Your task to perform on an android device: turn off data saver in the chrome app Image 0: 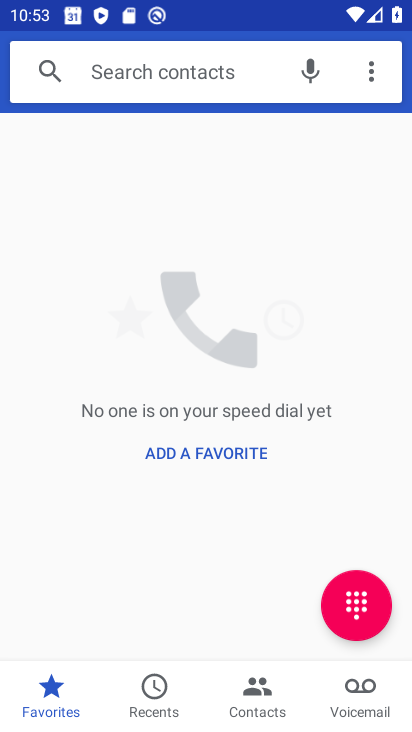
Step 0: press home button
Your task to perform on an android device: turn off data saver in the chrome app Image 1: 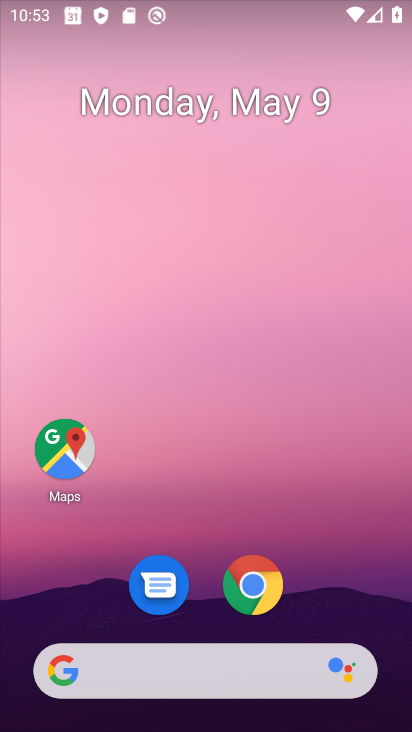
Step 1: click (260, 584)
Your task to perform on an android device: turn off data saver in the chrome app Image 2: 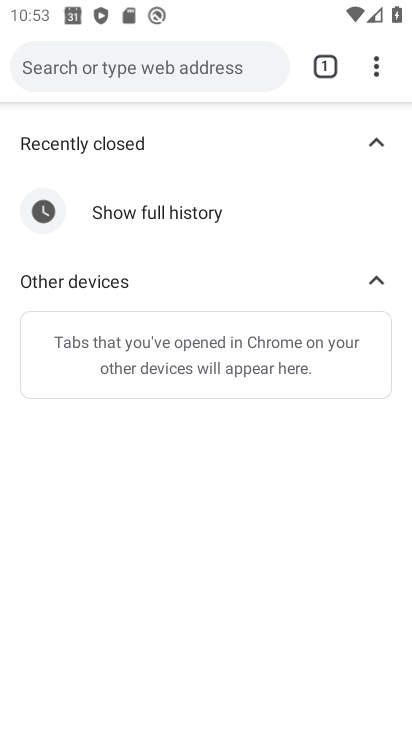
Step 2: click (373, 64)
Your task to perform on an android device: turn off data saver in the chrome app Image 3: 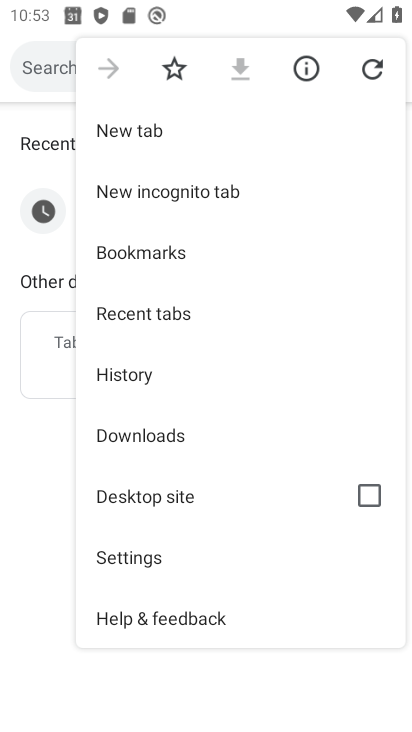
Step 3: click (275, 569)
Your task to perform on an android device: turn off data saver in the chrome app Image 4: 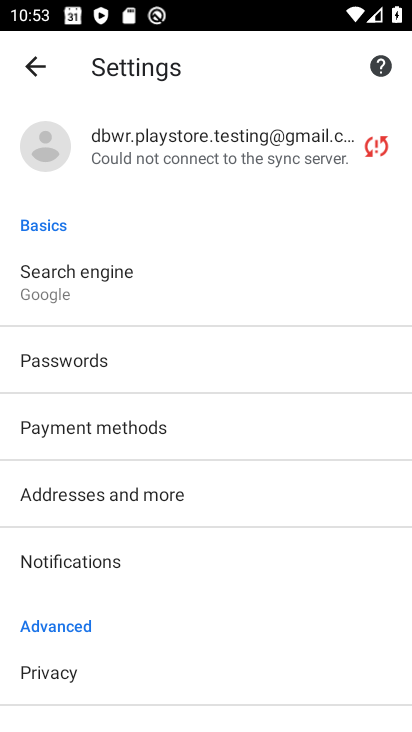
Step 4: click (275, 569)
Your task to perform on an android device: turn off data saver in the chrome app Image 5: 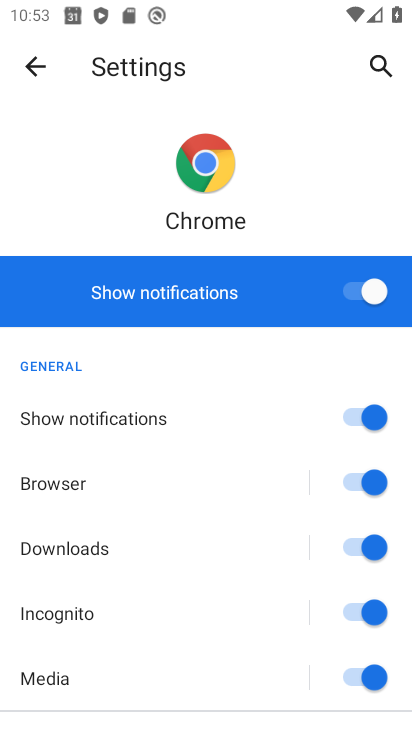
Step 5: click (39, 61)
Your task to perform on an android device: turn off data saver in the chrome app Image 6: 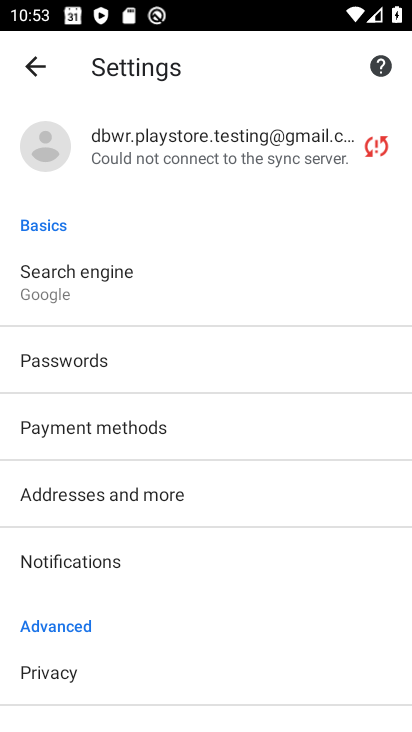
Step 6: drag from (159, 614) to (185, 364)
Your task to perform on an android device: turn off data saver in the chrome app Image 7: 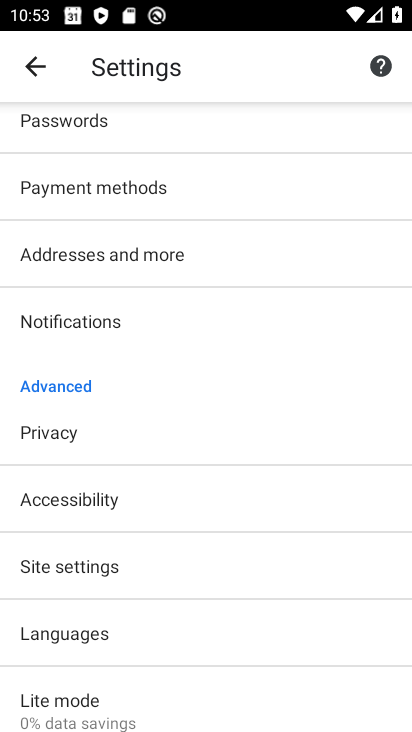
Step 7: click (176, 704)
Your task to perform on an android device: turn off data saver in the chrome app Image 8: 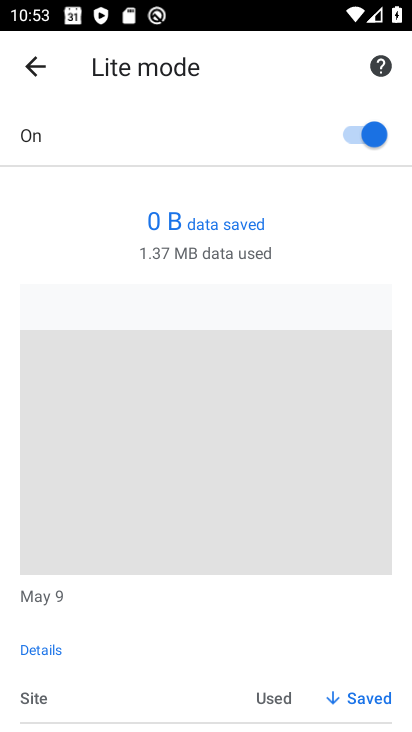
Step 8: click (348, 127)
Your task to perform on an android device: turn off data saver in the chrome app Image 9: 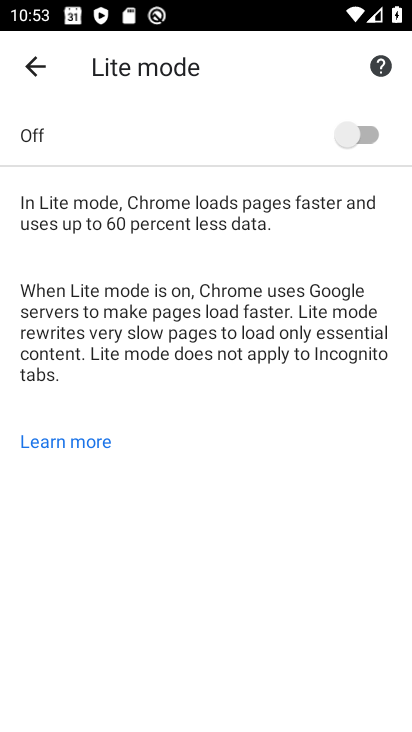
Step 9: task complete